Your task to perform on an android device: Open Wikipedia Image 0: 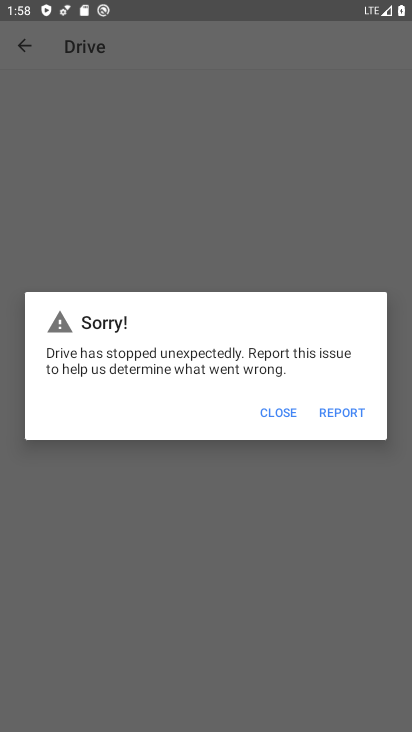
Step 0: press home button
Your task to perform on an android device: Open Wikipedia Image 1: 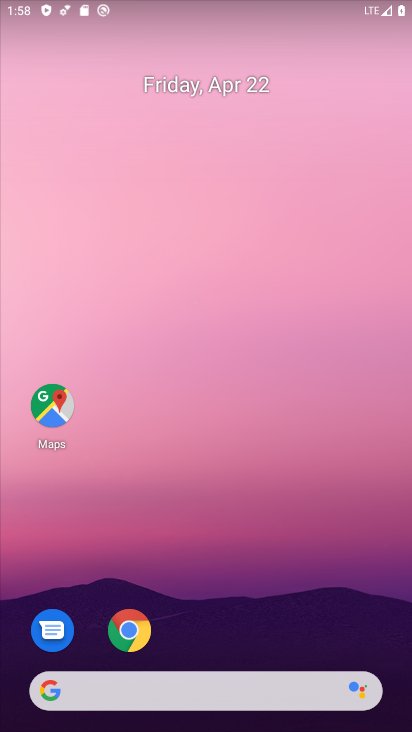
Step 1: drag from (372, 594) to (351, 178)
Your task to perform on an android device: Open Wikipedia Image 2: 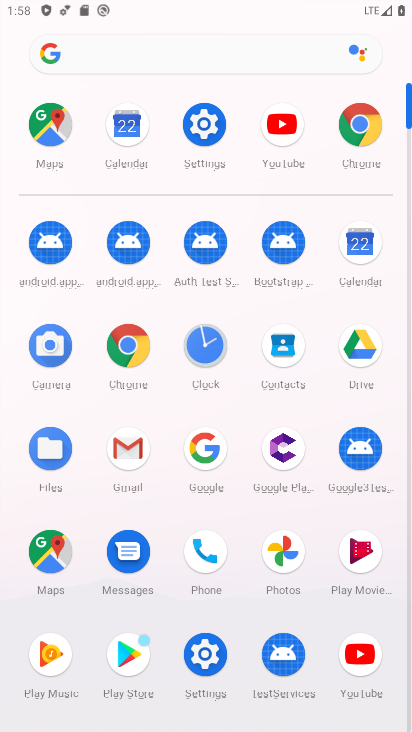
Step 2: click (120, 339)
Your task to perform on an android device: Open Wikipedia Image 3: 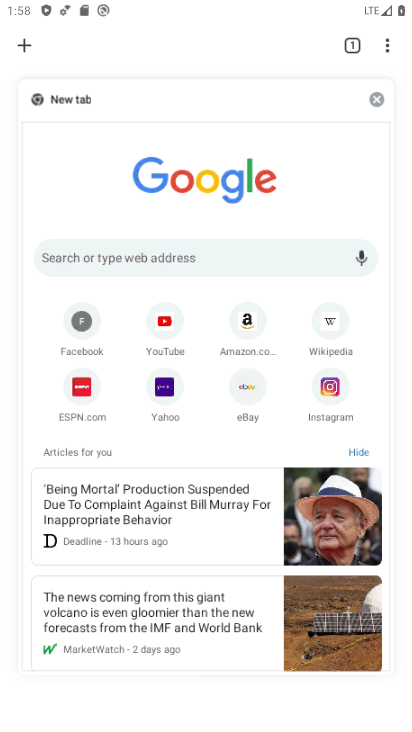
Step 3: click (156, 260)
Your task to perform on an android device: Open Wikipedia Image 4: 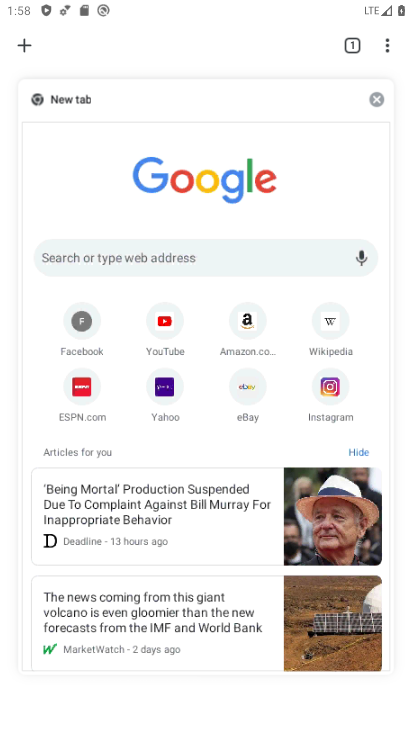
Step 4: click (154, 260)
Your task to perform on an android device: Open Wikipedia Image 5: 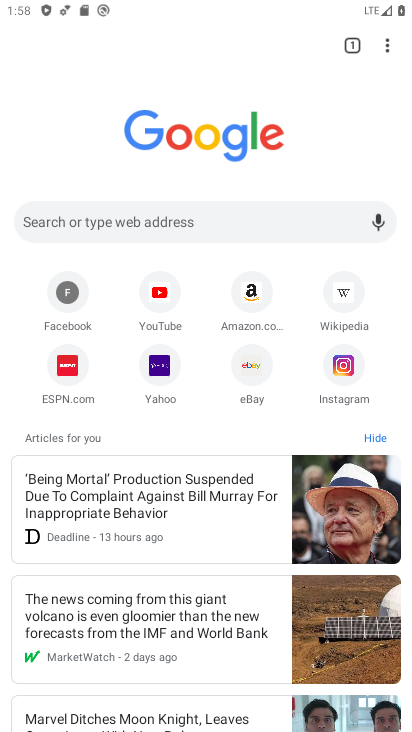
Step 5: click (358, 291)
Your task to perform on an android device: Open Wikipedia Image 6: 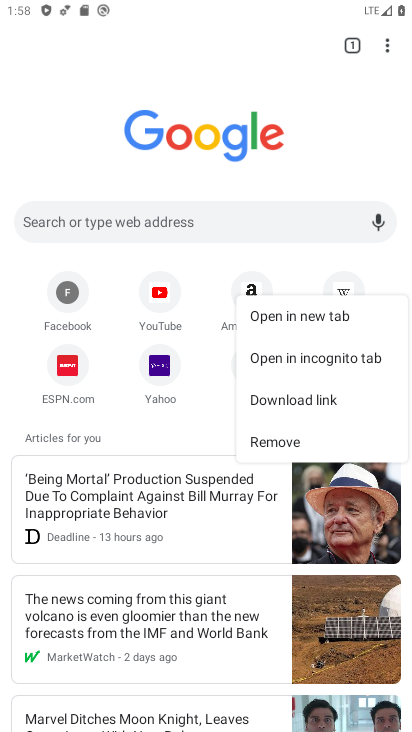
Step 6: click (346, 287)
Your task to perform on an android device: Open Wikipedia Image 7: 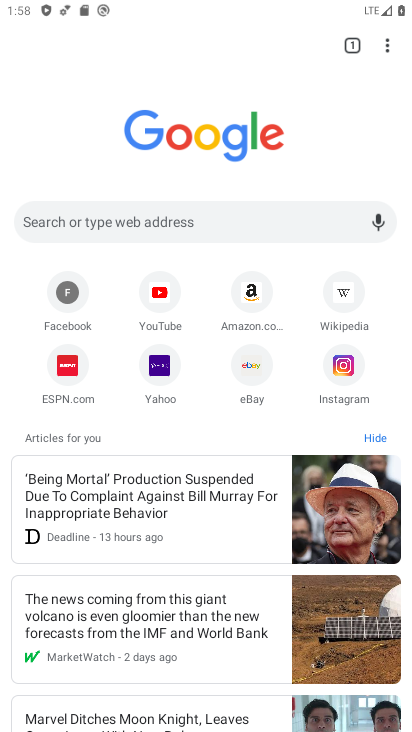
Step 7: click (346, 287)
Your task to perform on an android device: Open Wikipedia Image 8: 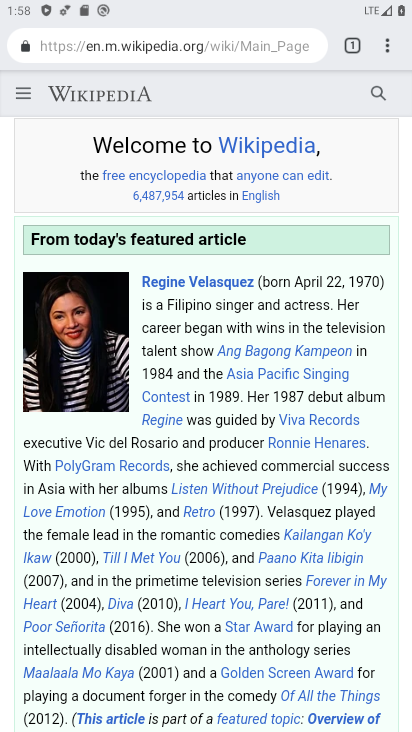
Step 8: task complete